Your task to perform on an android device: When is my next meeting? Image 0: 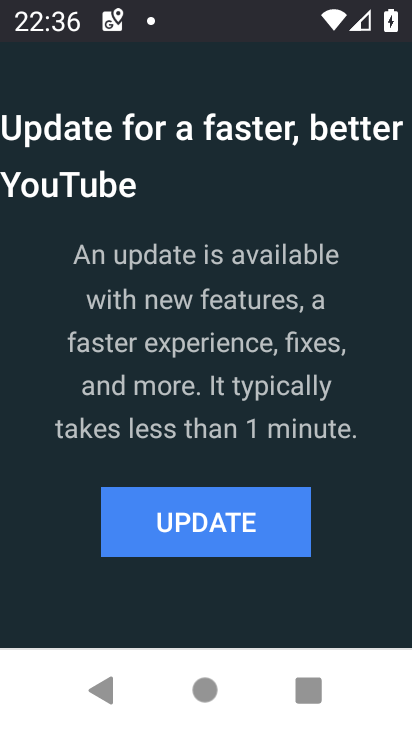
Step 0: press home button
Your task to perform on an android device: When is my next meeting? Image 1: 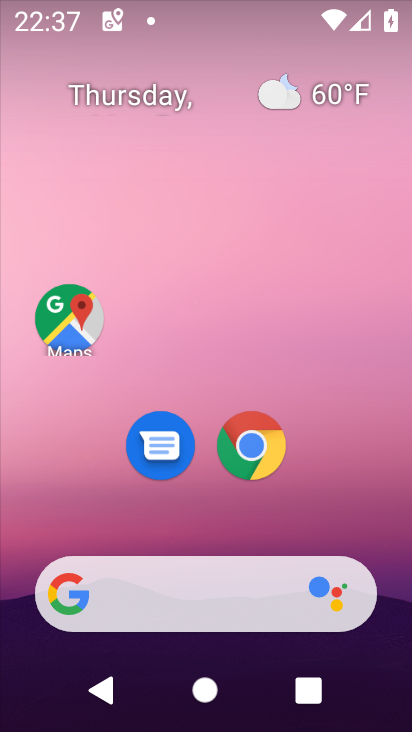
Step 1: drag from (235, 595) to (235, 263)
Your task to perform on an android device: When is my next meeting? Image 2: 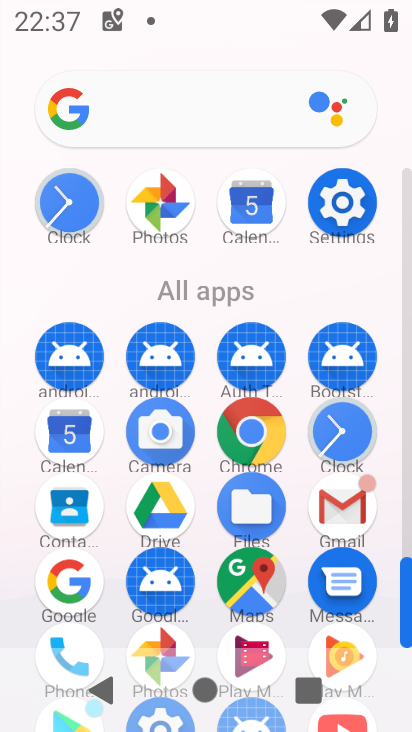
Step 2: click (59, 425)
Your task to perform on an android device: When is my next meeting? Image 3: 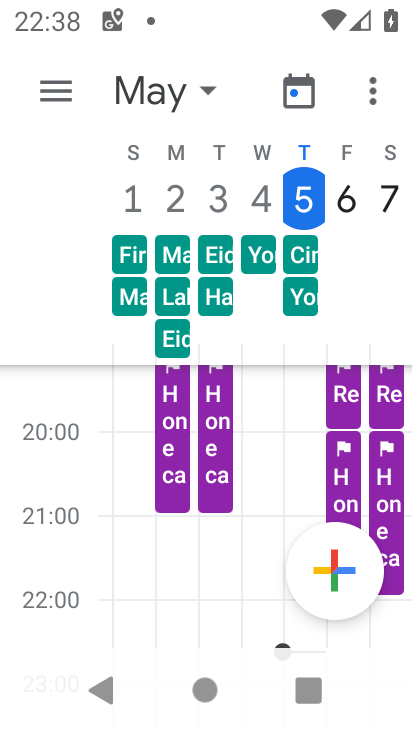
Step 3: task complete